Your task to perform on an android device: When is my next appointment? Image 0: 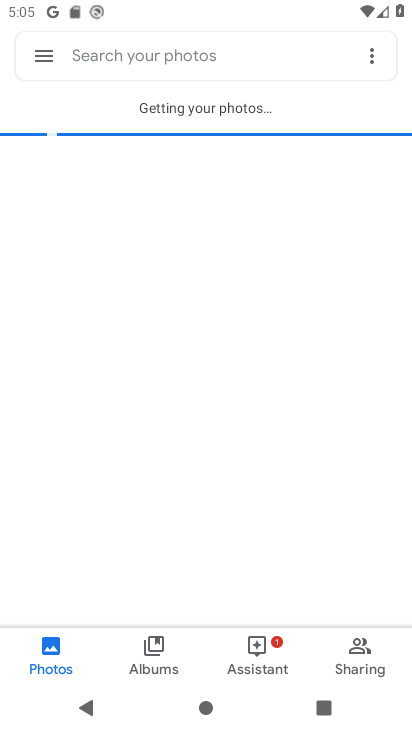
Step 0: press home button
Your task to perform on an android device: When is my next appointment? Image 1: 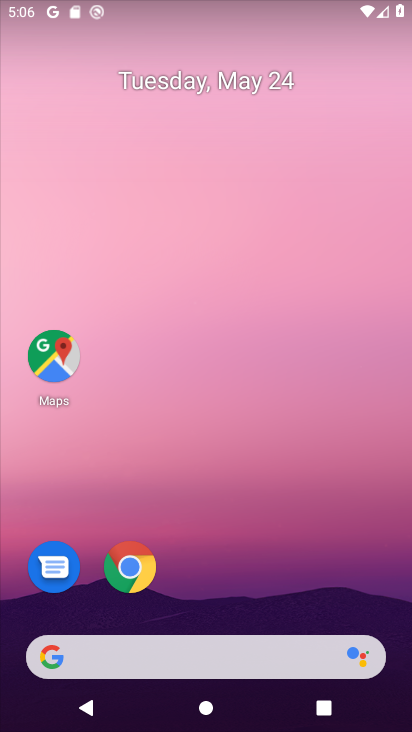
Step 1: drag from (245, 587) to (207, 238)
Your task to perform on an android device: When is my next appointment? Image 2: 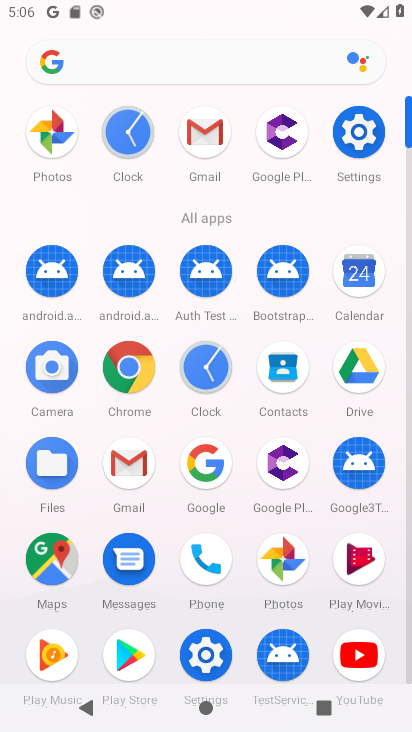
Step 2: click (359, 276)
Your task to perform on an android device: When is my next appointment? Image 3: 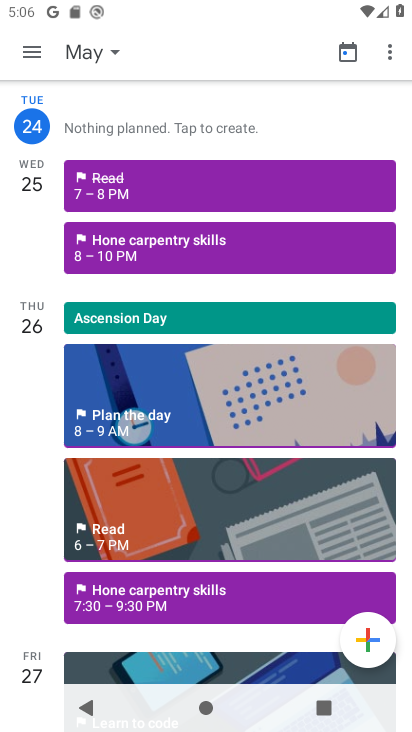
Step 3: click (150, 183)
Your task to perform on an android device: When is my next appointment? Image 4: 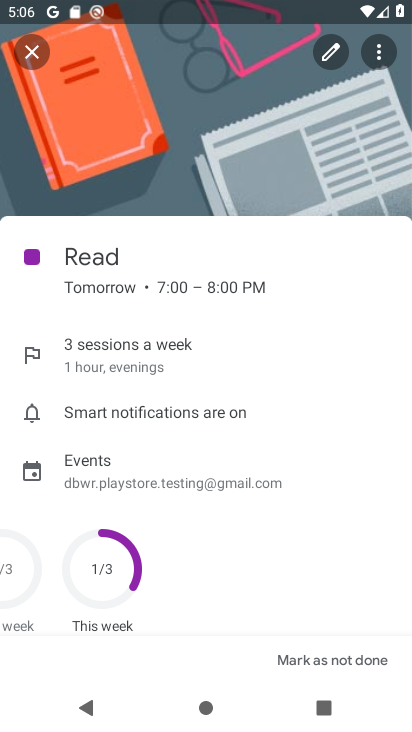
Step 4: task complete